Your task to perform on an android device: Go to display settings Image 0: 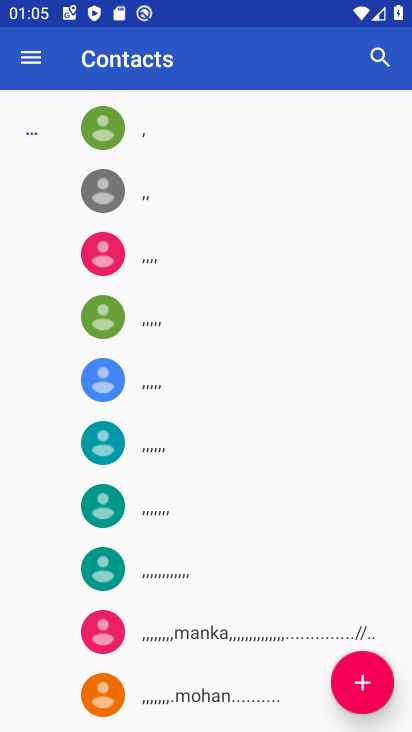
Step 0: press back button
Your task to perform on an android device: Go to display settings Image 1: 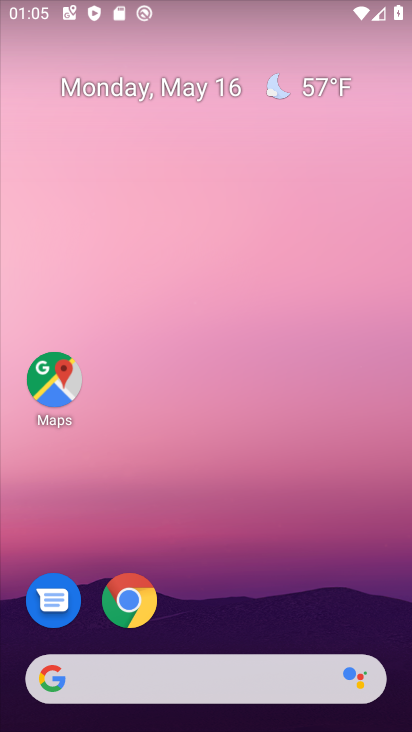
Step 1: drag from (238, 530) to (278, 63)
Your task to perform on an android device: Go to display settings Image 2: 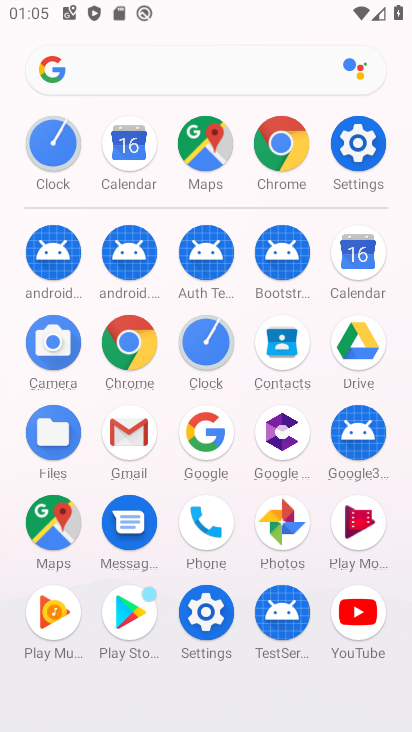
Step 2: click (356, 156)
Your task to perform on an android device: Go to display settings Image 3: 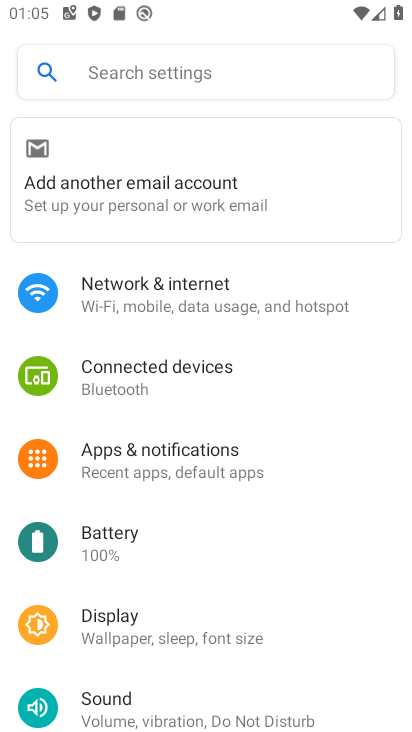
Step 3: click (180, 633)
Your task to perform on an android device: Go to display settings Image 4: 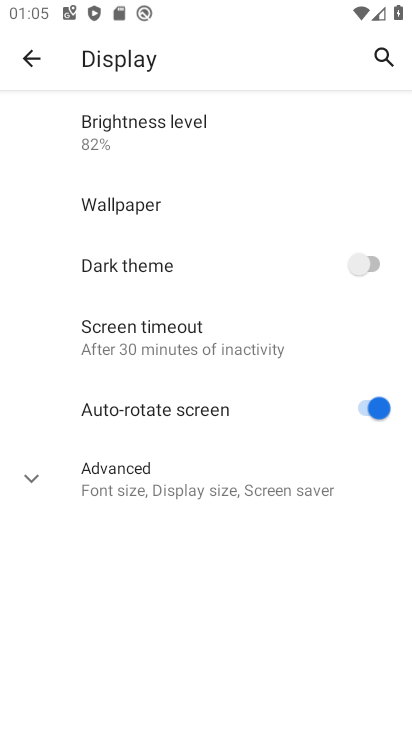
Step 4: task complete